Your task to perform on an android device: allow notifications from all sites in the chrome app Image 0: 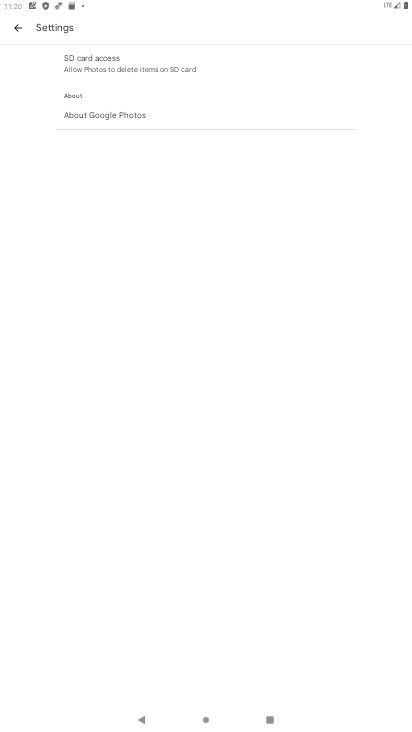
Step 0: press home button
Your task to perform on an android device: allow notifications from all sites in the chrome app Image 1: 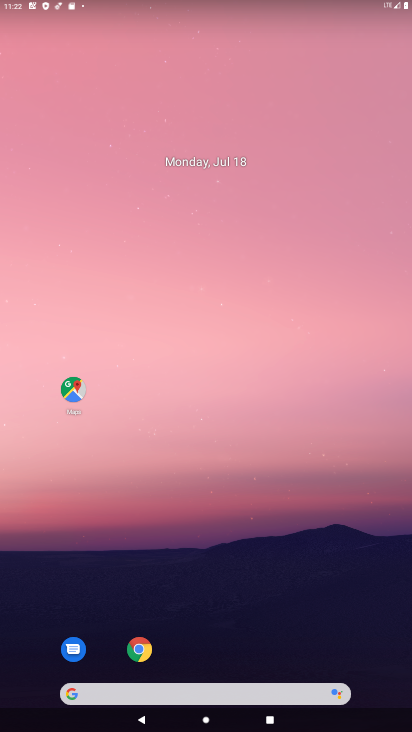
Step 1: click (146, 645)
Your task to perform on an android device: allow notifications from all sites in the chrome app Image 2: 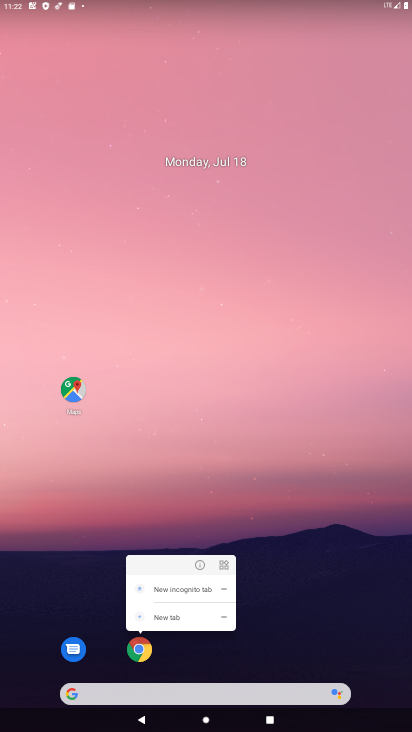
Step 2: click (196, 560)
Your task to perform on an android device: allow notifications from all sites in the chrome app Image 3: 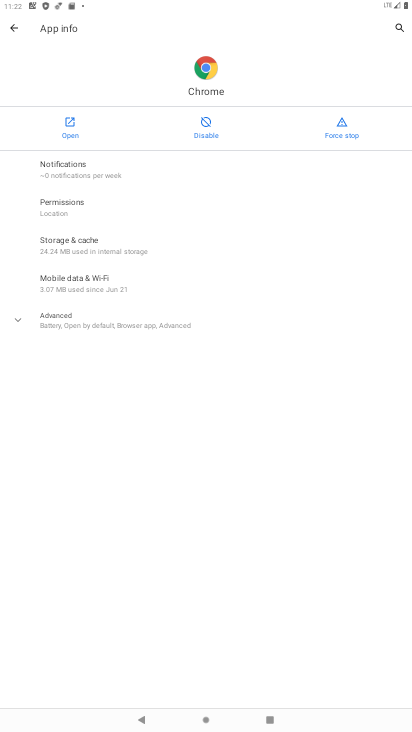
Step 3: click (147, 165)
Your task to perform on an android device: allow notifications from all sites in the chrome app Image 4: 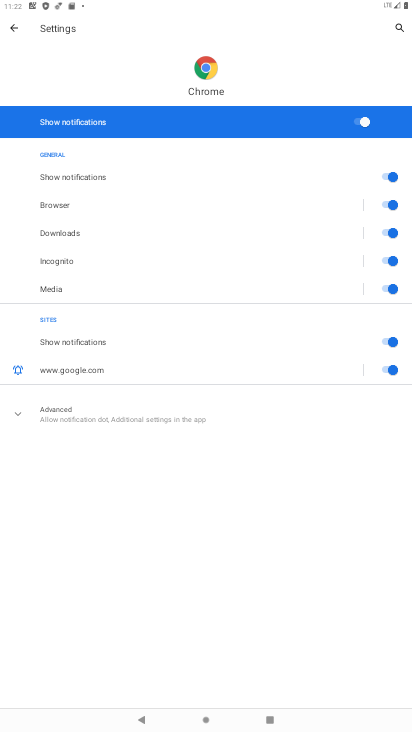
Step 4: task complete